Your task to perform on an android device: check android version Image 0: 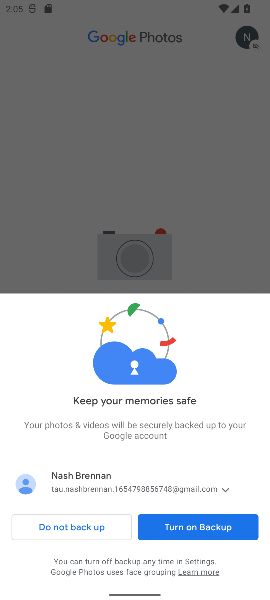
Step 0: press home button
Your task to perform on an android device: check android version Image 1: 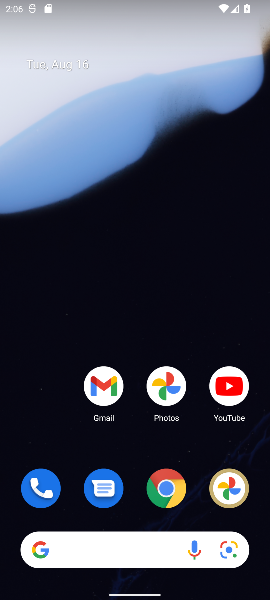
Step 1: drag from (66, 356) to (79, 41)
Your task to perform on an android device: check android version Image 2: 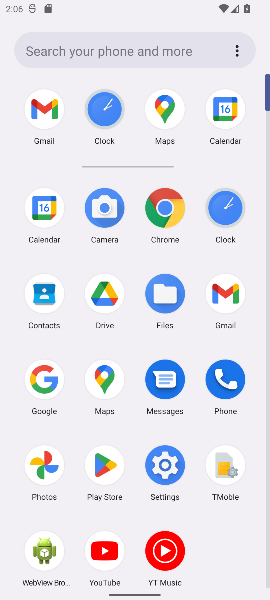
Step 2: click (175, 455)
Your task to perform on an android device: check android version Image 3: 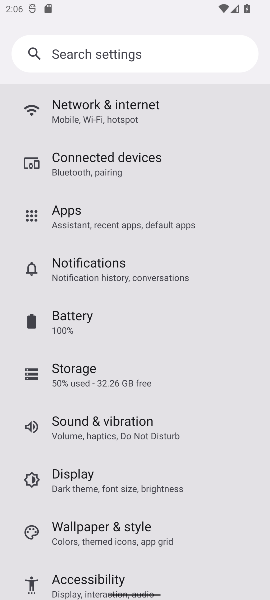
Step 3: task complete